Your task to perform on an android device: create a new album in the google photos Image 0: 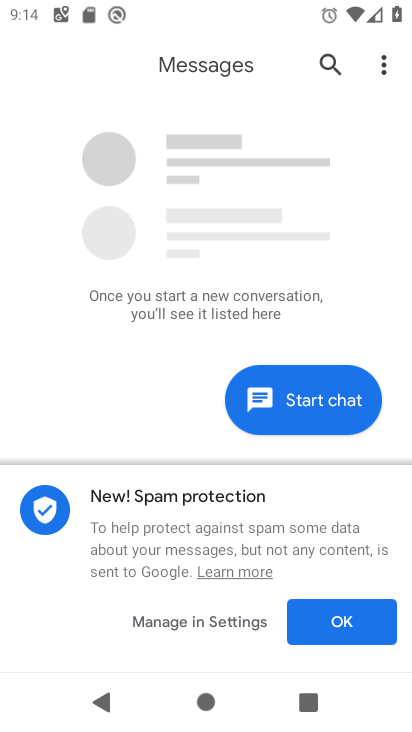
Step 0: press home button
Your task to perform on an android device: create a new album in the google photos Image 1: 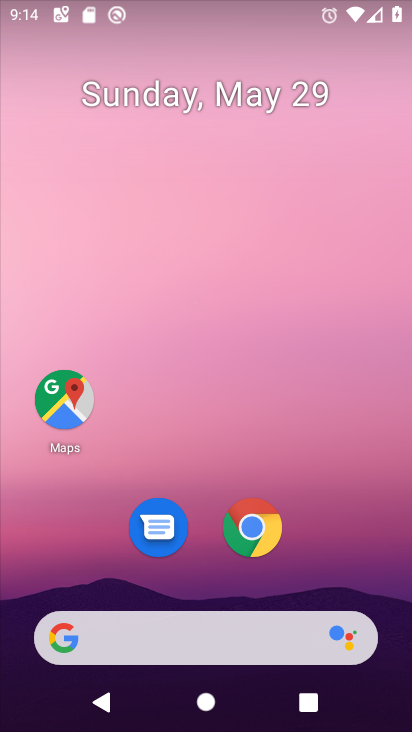
Step 1: drag from (209, 584) to (206, 161)
Your task to perform on an android device: create a new album in the google photos Image 2: 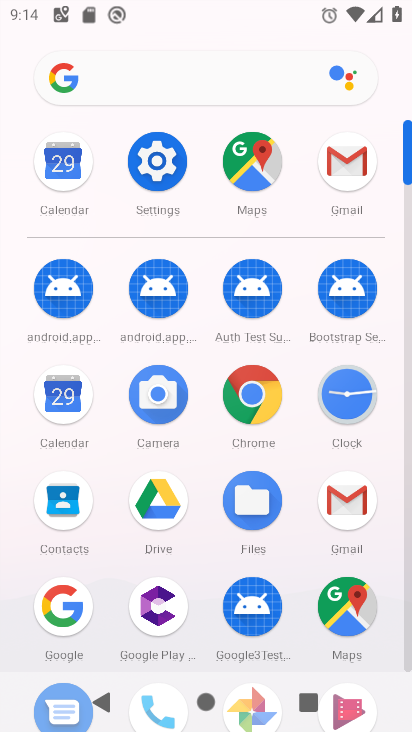
Step 2: drag from (201, 619) to (212, 191)
Your task to perform on an android device: create a new album in the google photos Image 3: 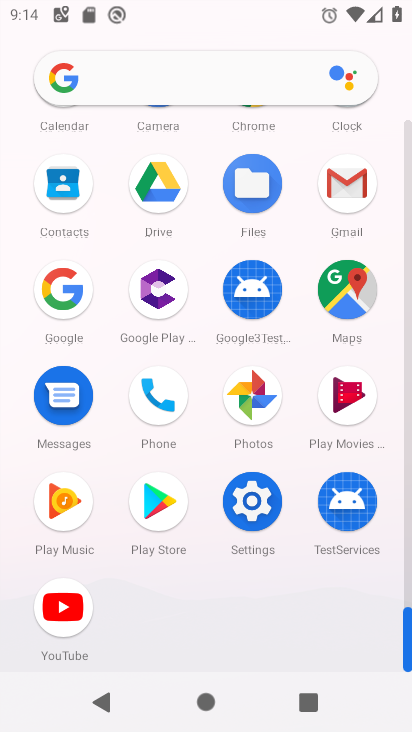
Step 3: click (250, 386)
Your task to perform on an android device: create a new album in the google photos Image 4: 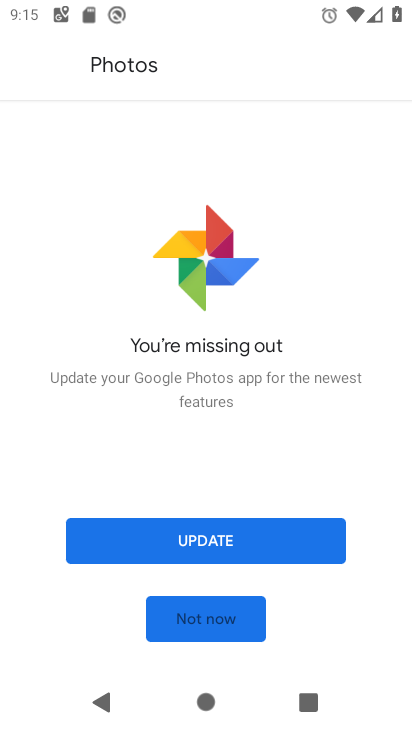
Step 4: click (218, 617)
Your task to perform on an android device: create a new album in the google photos Image 5: 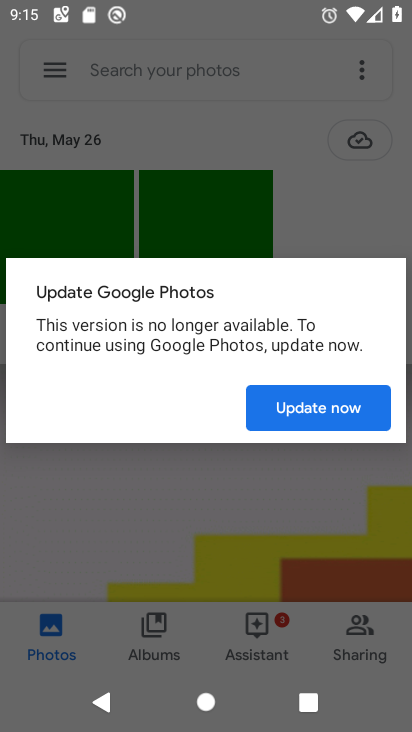
Step 5: click (330, 408)
Your task to perform on an android device: create a new album in the google photos Image 6: 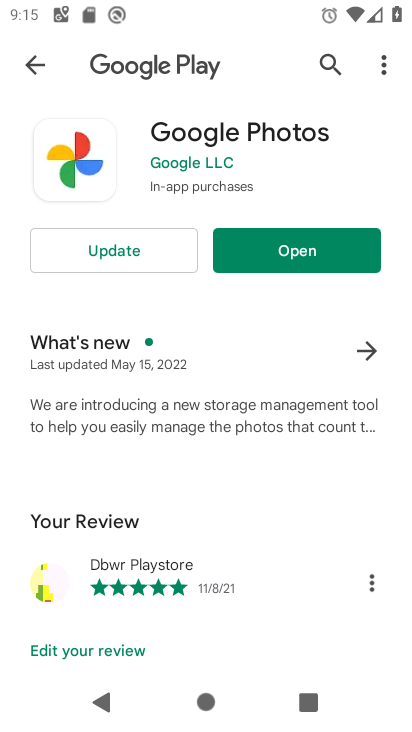
Step 6: click (114, 251)
Your task to perform on an android device: create a new album in the google photos Image 7: 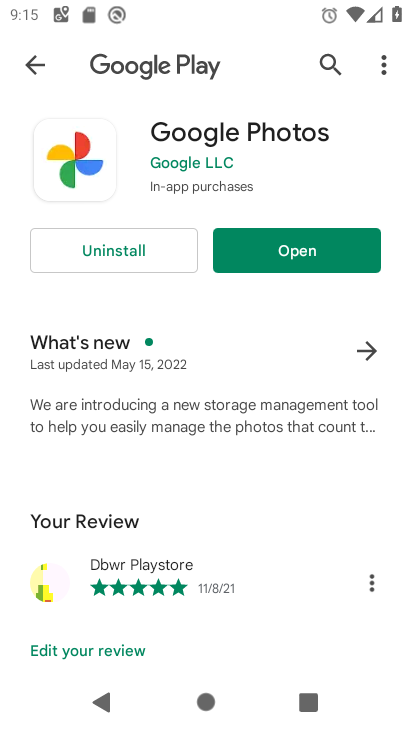
Step 7: click (300, 252)
Your task to perform on an android device: create a new album in the google photos Image 8: 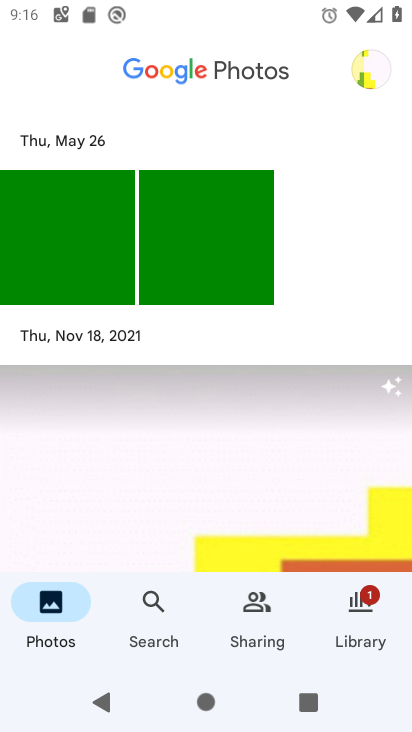
Step 8: click (146, 597)
Your task to perform on an android device: create a new album in the google photos Image 9: 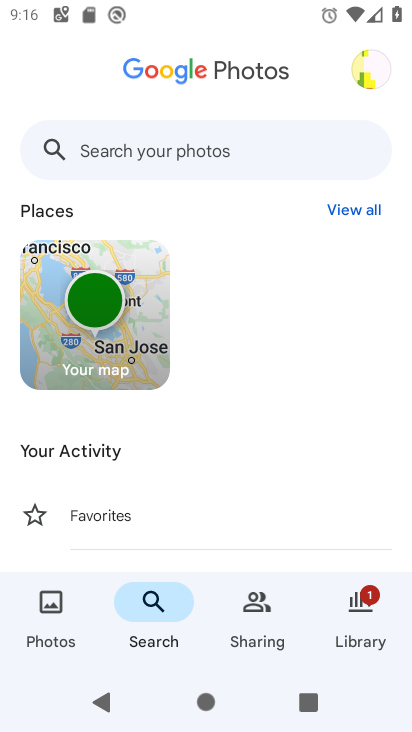
Step 9: click (272, 600)
Your task to perform on an android device: create a new album in the google photos Image 10: 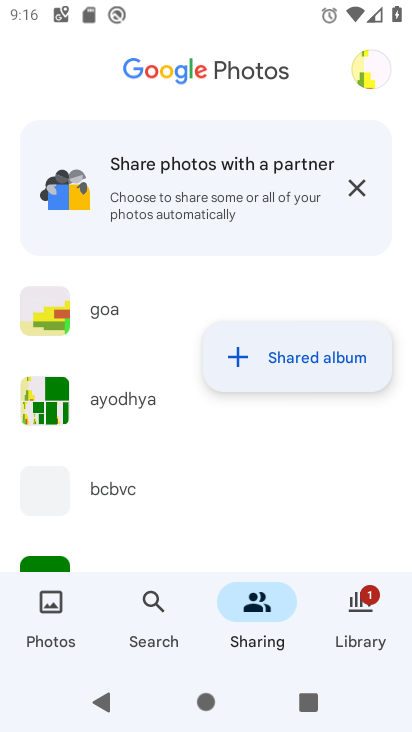
Step 10: click (289, 347)
Your task to perform on an android device: create a new album in the google photos Image 11: 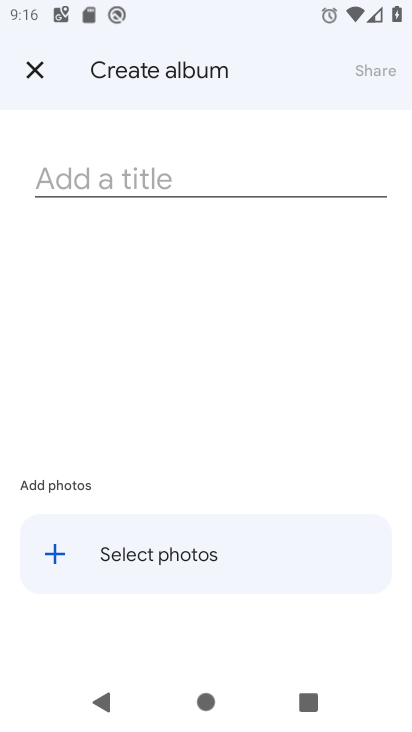
Step 11: click (132, 546)
Your task to perform on an android device: create a new album in the google photos Image 12: 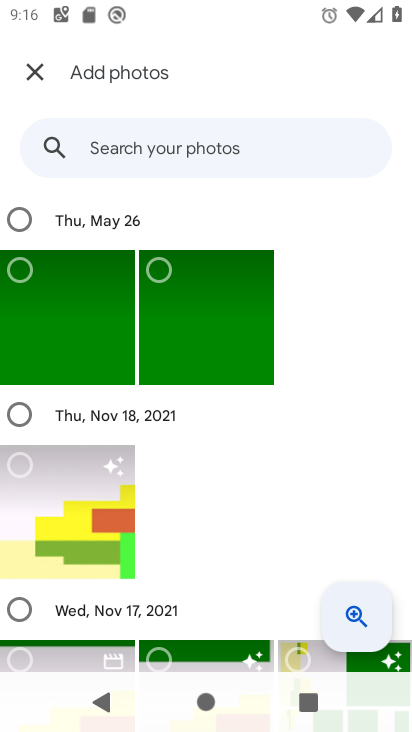
Step 12: click (92, 296)
Your task to perform on an android device: create a new album in the google photos Image 13: 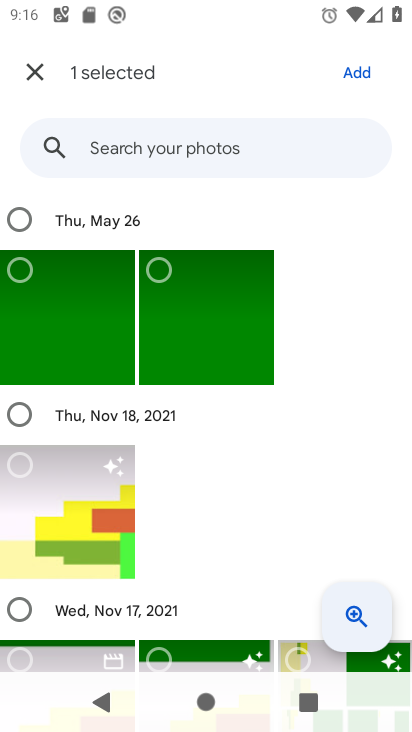
Step 13: click (102, 514)
Your task to perform on an android device: create a new album in the google photos Image 14: 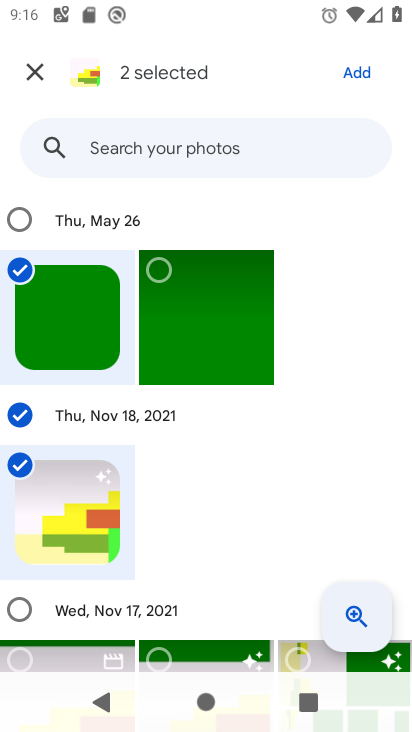
Step 14: click (203, 646)
Your task to perform on an android device: create a new album in the google photos Image 15: 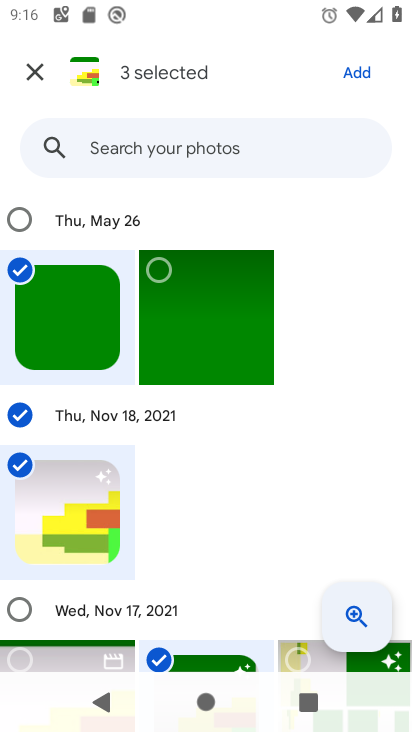
Step 15: click (318, 657)
Your task to perform on an android device: create a new album in the google photos Image 16: 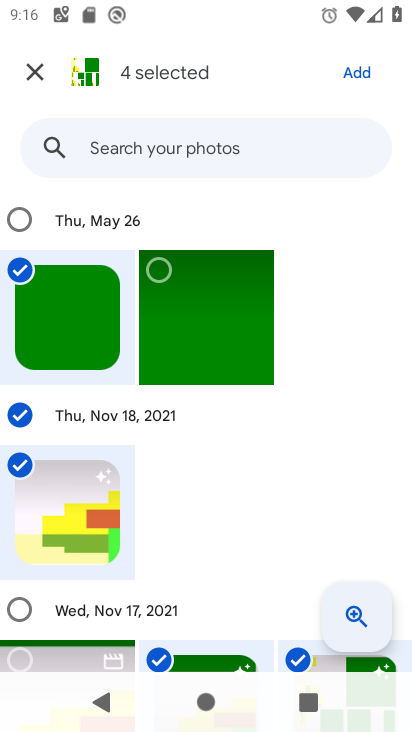
Step 16: click (360, 72)
Your task to perform on an android device: create a new album in the google photos Image 17: 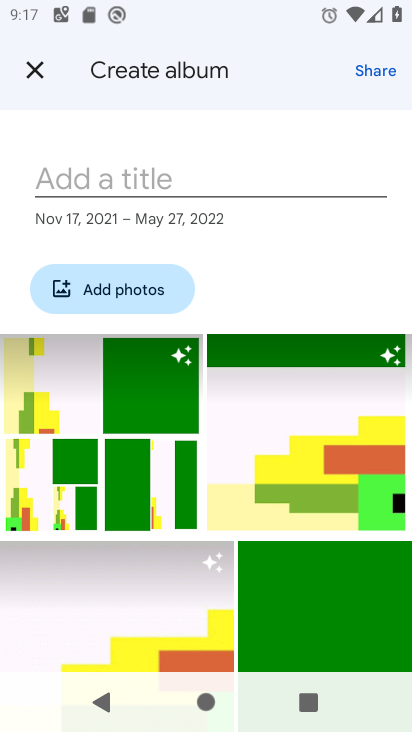
Step 17: click (142, 179)
Your task to perform on an android device: create a new album in the google photos Image 18: 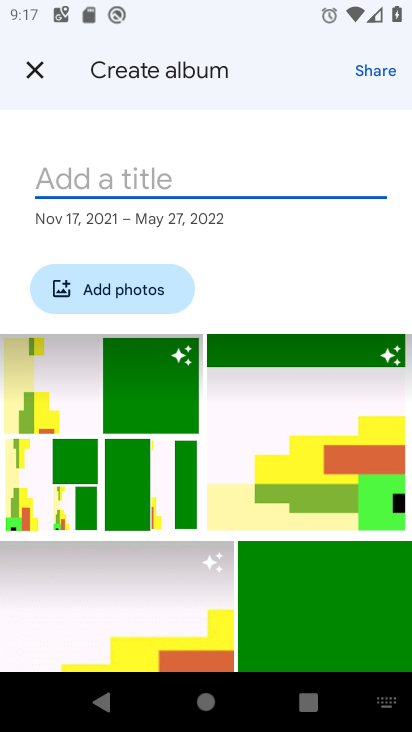
Step 18: type "jhfc"
Your task to perform on an android device: create a new album in the google photos Image 19: 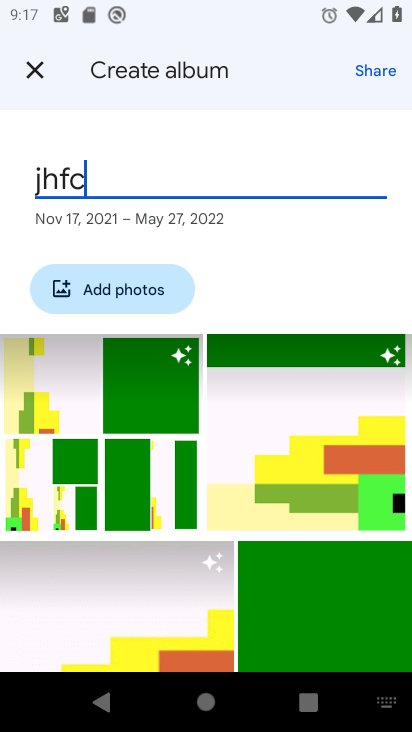
Step 19: click (265, 296)
Your task to perform on an android device: create a new album in the google photos Image 20: 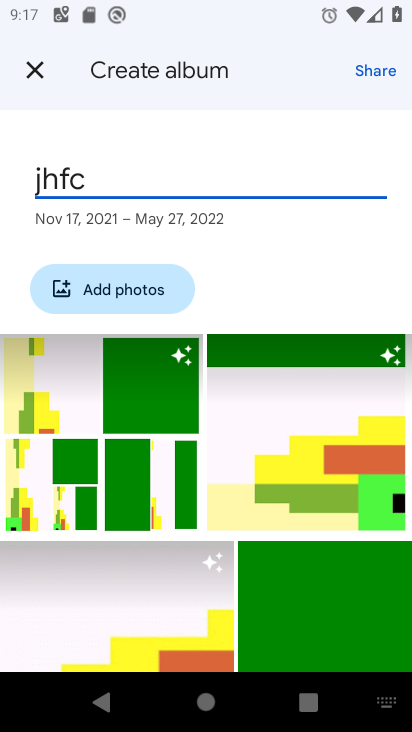
Step 20: task complete